Your task to perform on an android device: Play the last video I watched on Youtube Image 0: 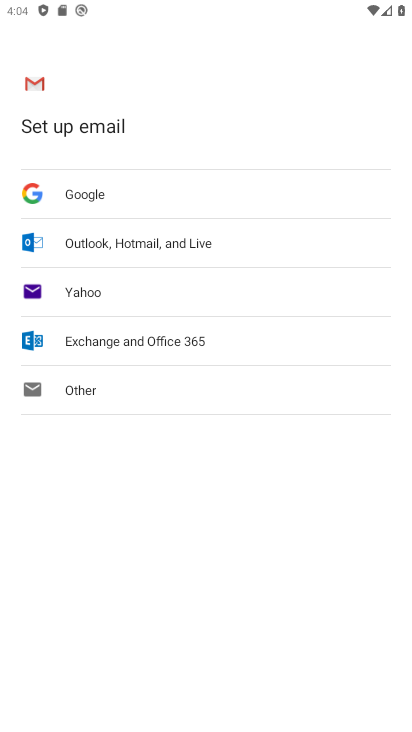
Step 0: press home button
Your task to perform on an android device: Play the last video I watched on Youtube Image 1: 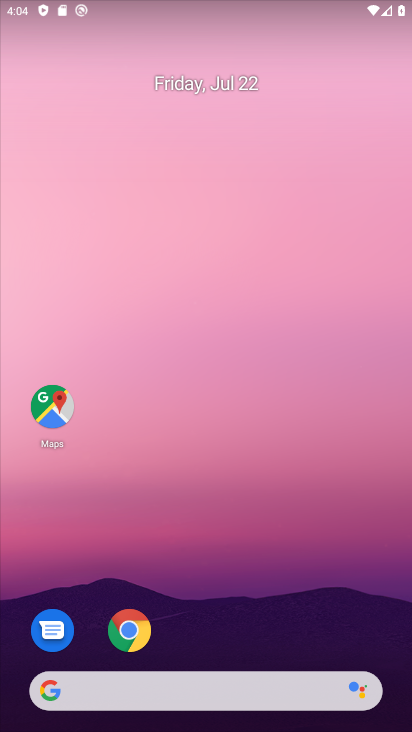
Step 1: drag from (166, 203) to (175, 34)
Your task to perform on an android device: Play the last video I watched on Youtube Image 2: 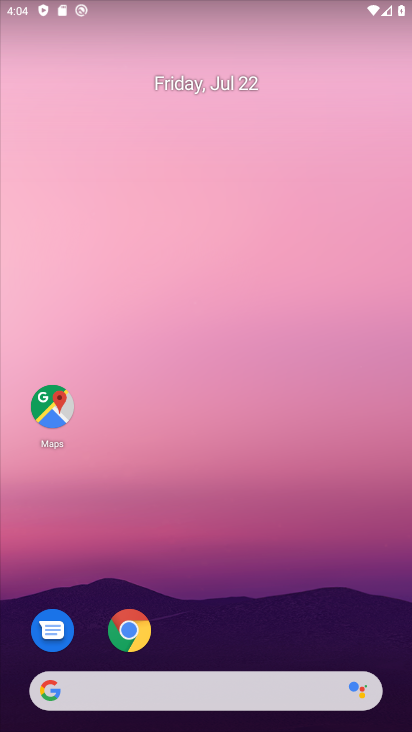
Step 2: drag from (225, 623) to (132, 30)
Your task to perform on an android device: Play the last video I watched on Youtube Image 3: 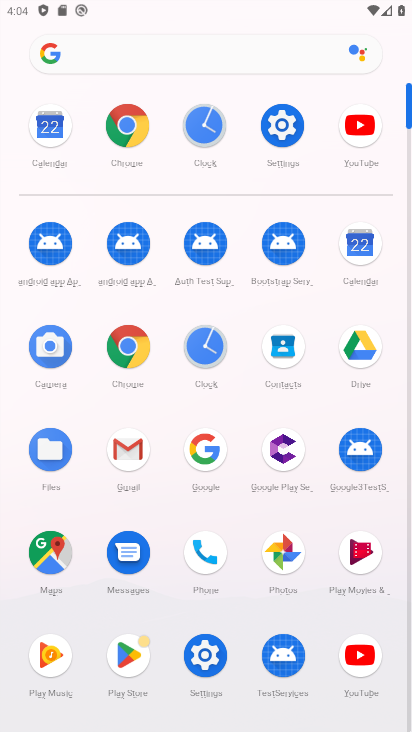
Step 3: click (371, 658)
Your task to perform on an android device: Play the last video I watched on Youtube Image 4: 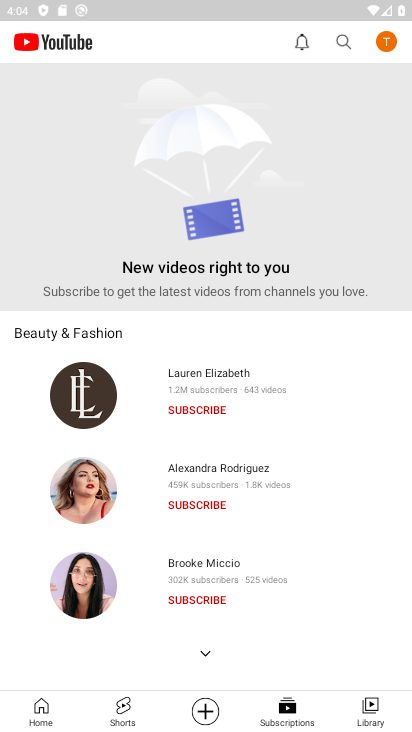
Step 4: click (375, 707)
Your task to perform on an android device: Play the last video I watched on Youtube Image 5: 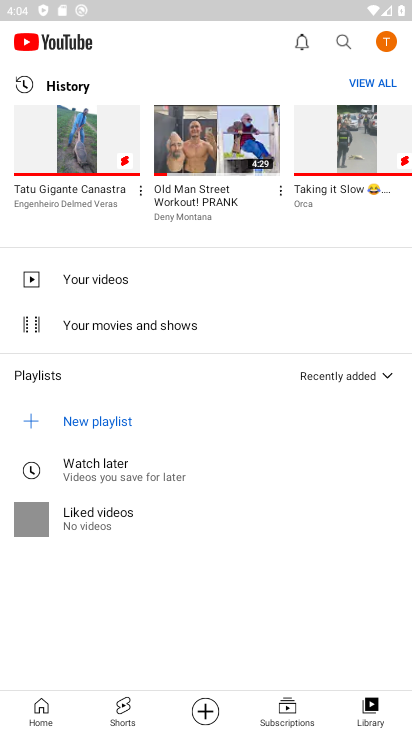
Step 5: click (83, 150)
Your task to perform on an android device: Play the last video I watched on Youtube Image 6: 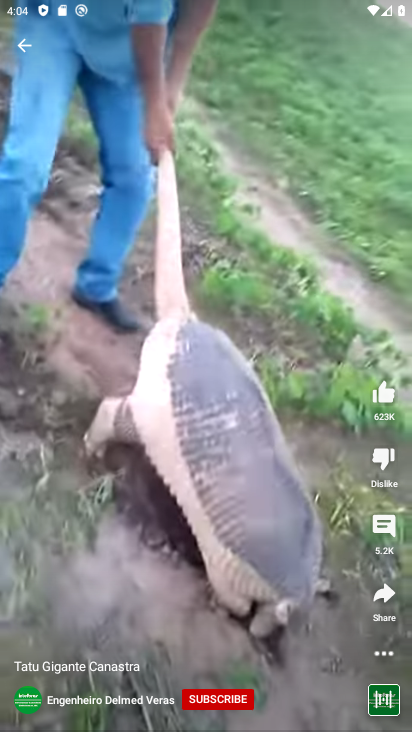
Step 6: task complete